Your task to perform on an android device: allow notifications from all sites in the chrome app Image 0: 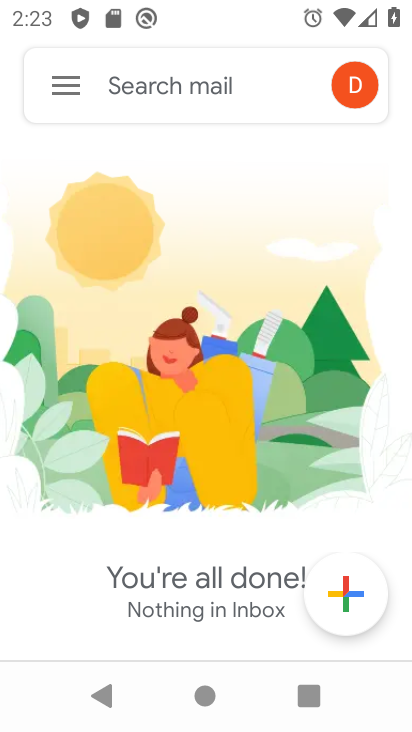
Step 0: click (69, 98)
Your task to perform on an android device: allow notifications from all sites in the chrome app Image 1: 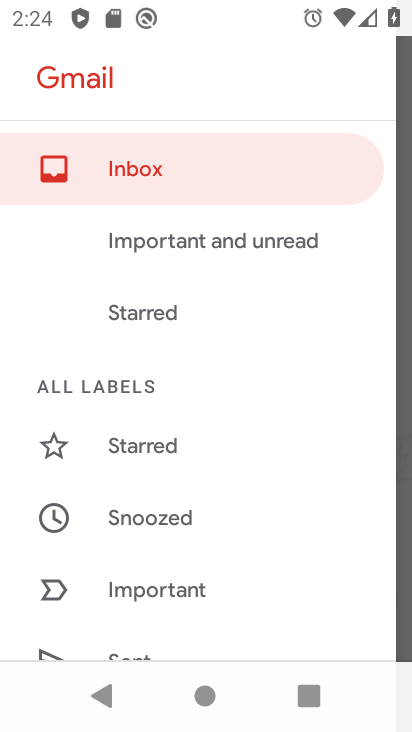
Step 1: drag from (165, 587) to (233, 79)
Your task to perform on an android device: allow notifications from all sites in the chrome app Image 2: 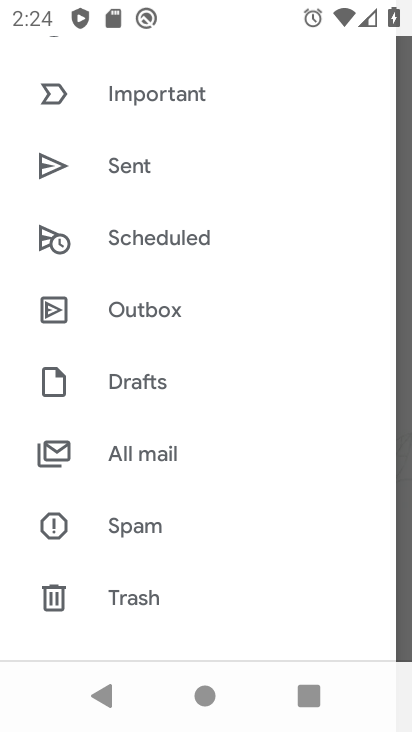
Step 2: drag from (128, 562) to (190, 169)
Your task to perform on an android device: allow notifications from all sites in the chrome app Image 3: 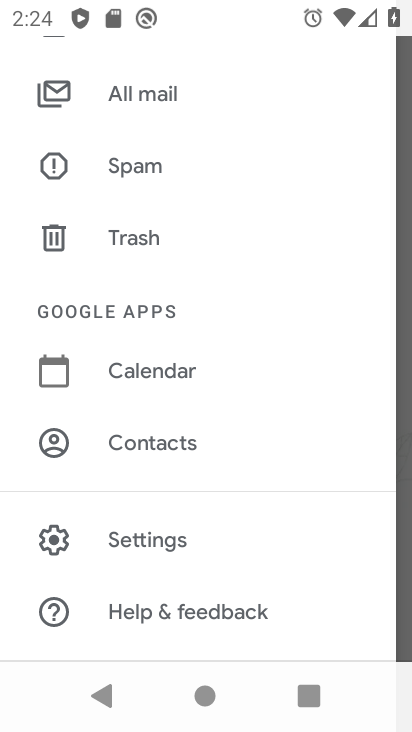
Step 3: click (103, 546)
Your task to perform on an android device: allow notifications from all sites in the chrome app Image 4: 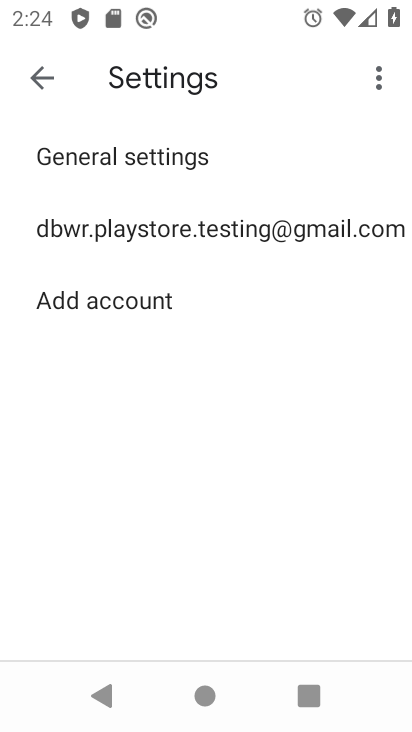
Step 4: click (231, 231)
Your task to perform on an android device: allow notifications from all sites in the chrome app Image 5: 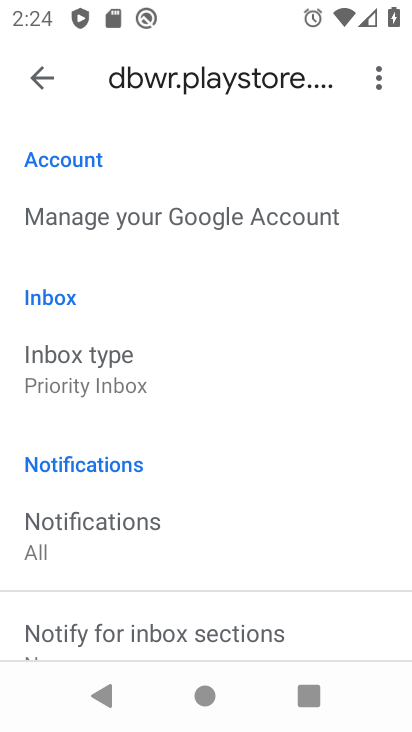
Step 5: drag from (164, 589) to (230, 0)
Your task to perform on an android device: allow notifications from all sites in the chrome app Image 6: 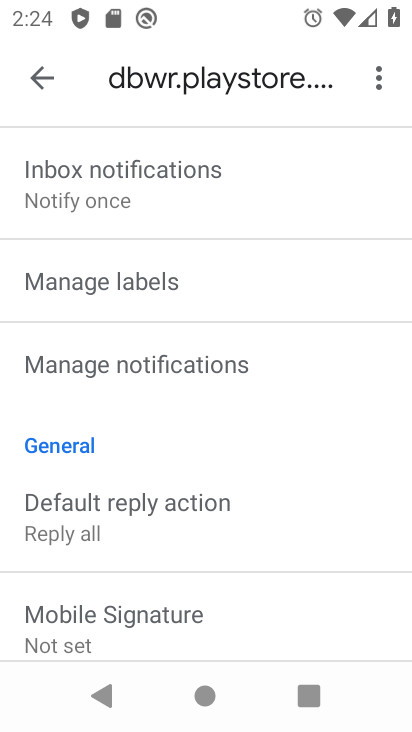
Step 6: drag from (49, 573) to (190, 130)
Your task to perform on an android device: allow notifications from all sites in the chrome app Image 7: 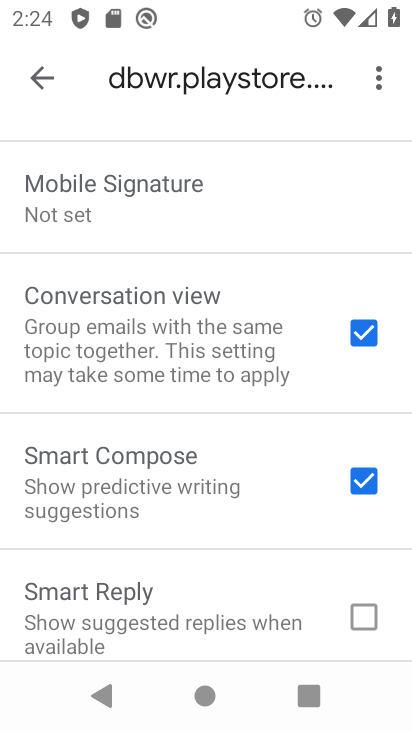
Step 7: drag from (219, 620) to (325, 233)
Your task to perform on an android device: allow notifications from all sites in the chrome app Image 8: 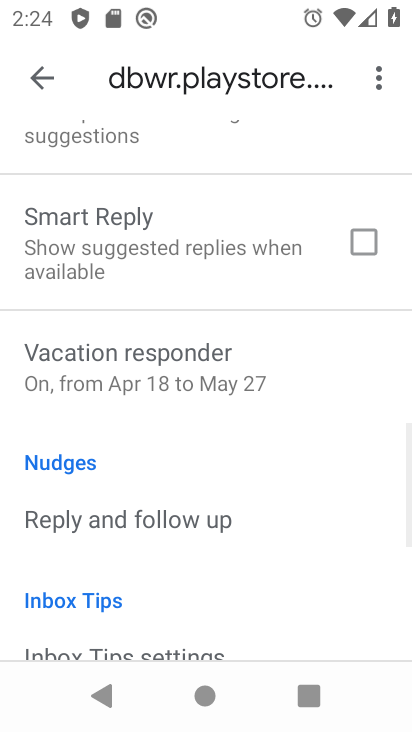
Step 8: drag from (325, 233) to (127, 625)
Your task to perform on an android device: allow notifications from all sites in the chrome app Image 9: 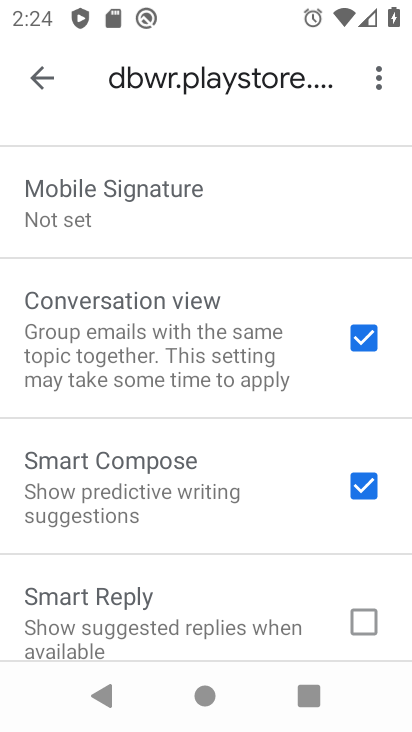
Step 9: drag from (109, 211) to (106, 650)
Your task to perform on an android device: allow notifications from all sites in the chrome app Image 10: 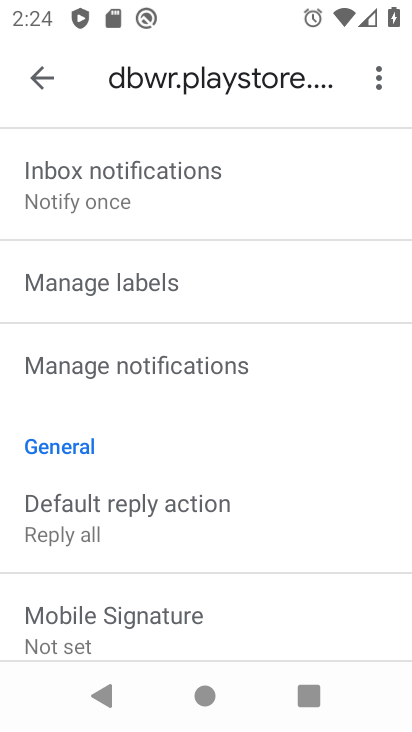
Step 10: drag from (113, 164) to (93, 517)
Your task to perform on an android device: allow notifications from all sites in the chrome app Image 11: 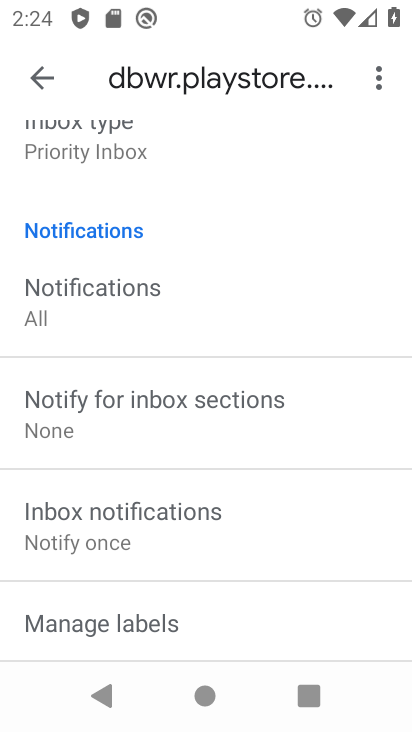
Step 11: drag from (147, 584) to (191, 197)
Your task to perform on an android device: allow notifications from all sites in the chrome app Image 12: 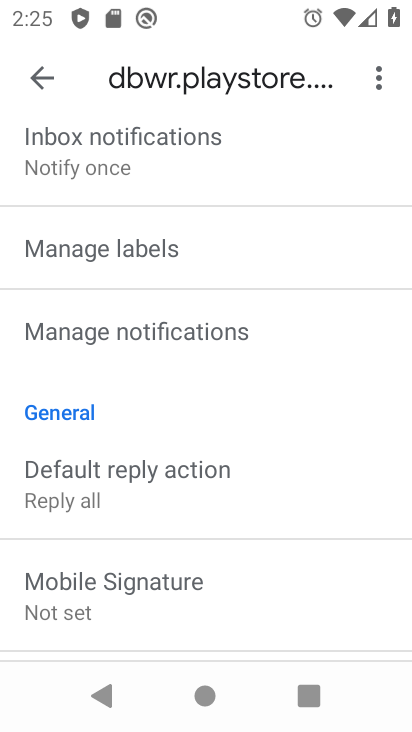
Step 12: click (178, 324)
Your task to perform on an android device: allow notifications from all sites in the chrome app Image 13: 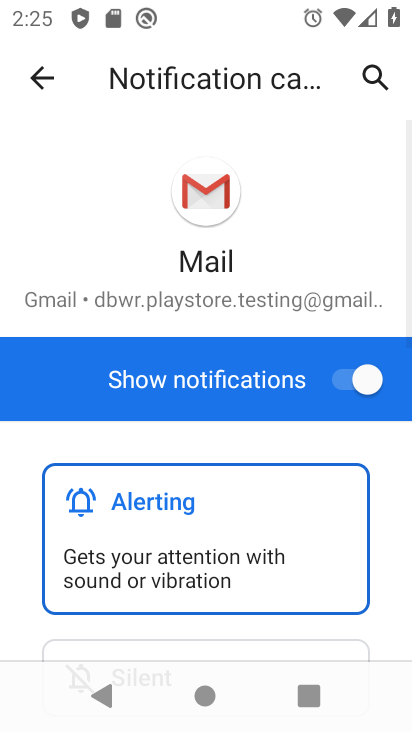
Step 13: drag from (172, 511) to (227, 136)
Your task to perform on an android device: allow notifications from all sites in the chrome app Image 14: 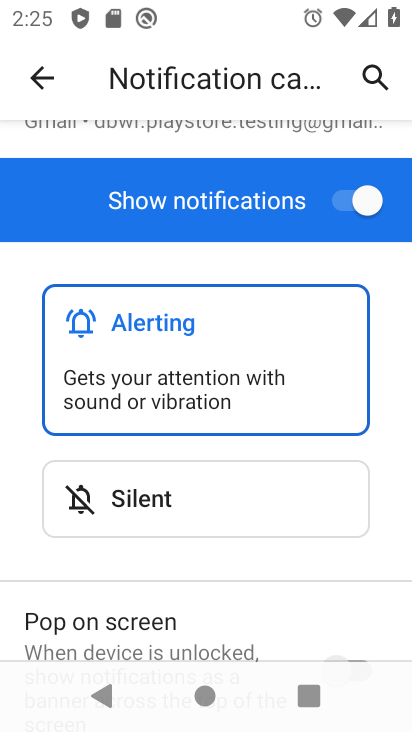
Step 14: drag from (157, 595) to (213, 43)
Your task to perform on an android device: allow notifications from all sites in the chrome app Image 15: 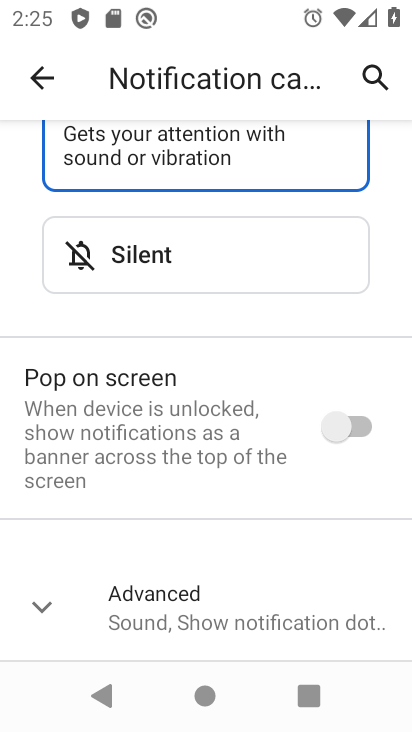
Step 15: click (182, 586)
Your task to perform on an android device: allow notifications from all sites in the chrome app Image 16: 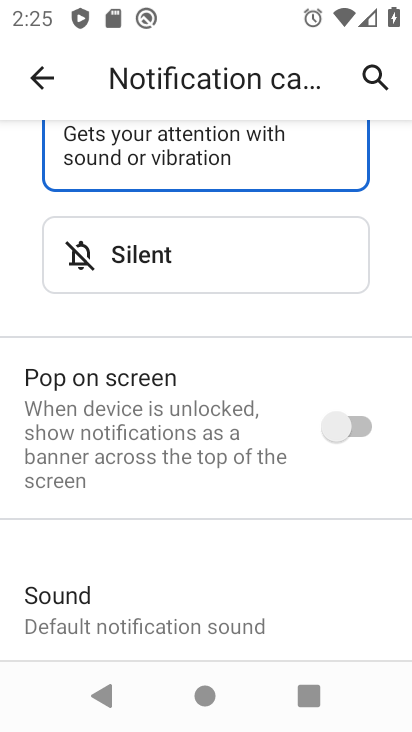
Step 16: drag from (89, 550) to (221, 41)
Your task to perform on an android device: allow notifications from all sites in the chrome app Image 17: 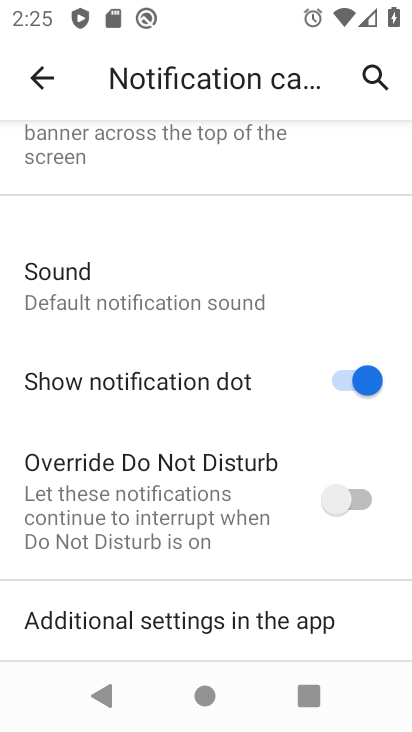
Step 17: drag from (242, 219) to (203, 552)
Your task to perform on an android device: allow notifications from all sites in the chrome app Image 18: 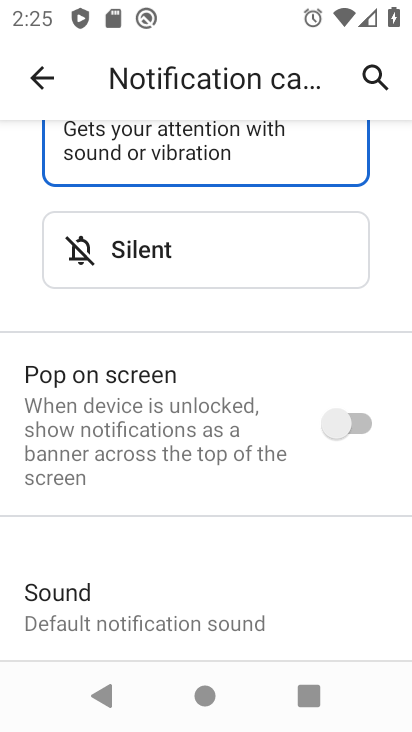
Step 18: drag from (170, 498) to (244, 54)
Your task to perform on an android device: allow notifications from all sites in the chrome app Image 19: 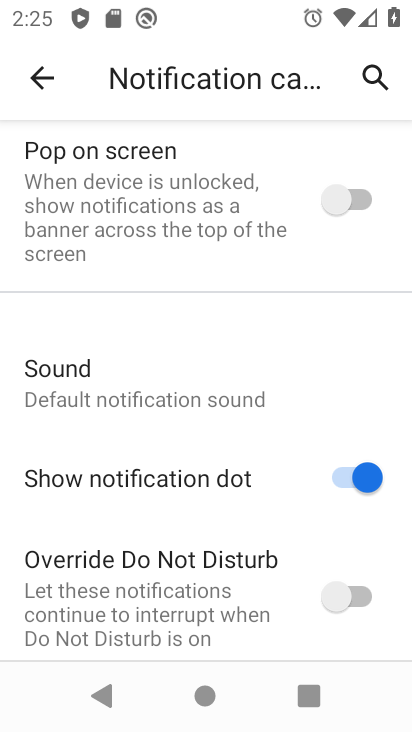
Step 19: drag from (150, 523) to (172, 243)
Your task to perform on an android device: allow notifications from all sites in the chrome app Image 20: 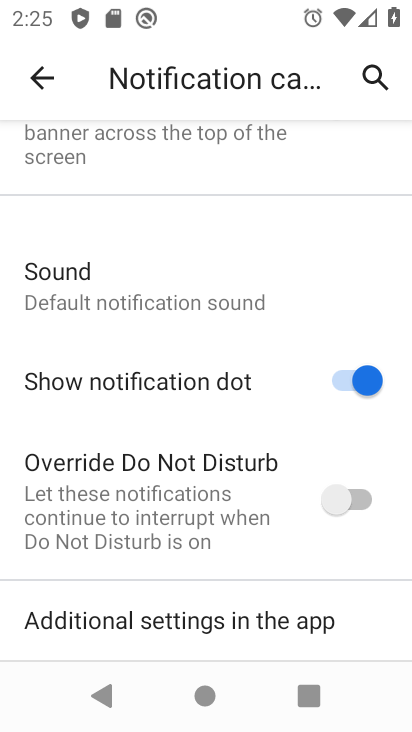
Step 20: drag from (222, 250) to (158, 631)
Your task to perform on an android device: allow notifications from all sites in the chrome app Image 21: 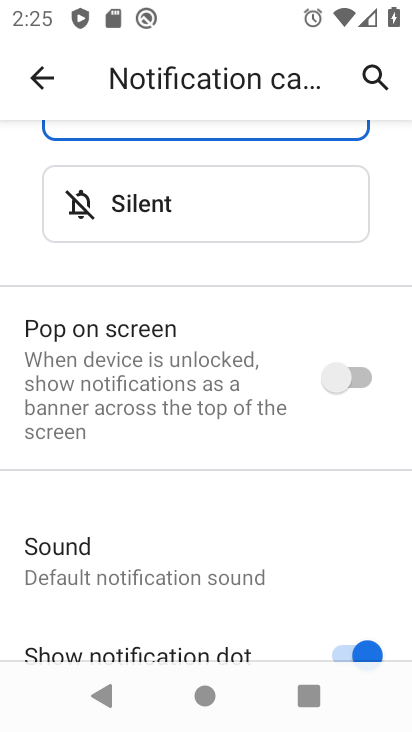
Step 21: drag from (148, 159) to (127, 681)
Your task to perform on an android device: allow notifications from all sites in the chrome app Image 22: 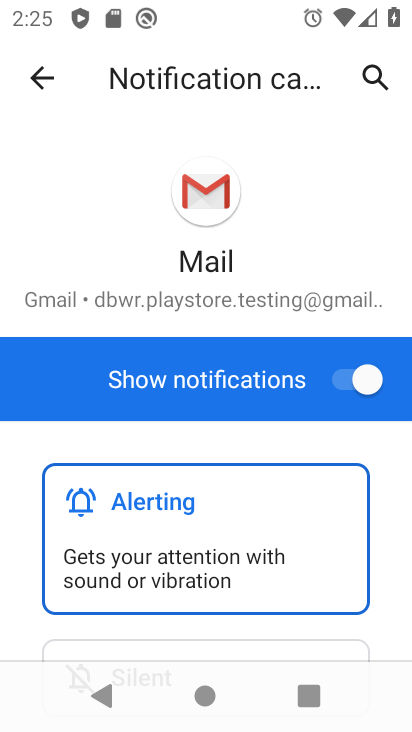
Step 22: drag from (182, 525) to (240, 147)
Your task to perform on an android device: allow notifications from all sites in the chrome app Image 23: 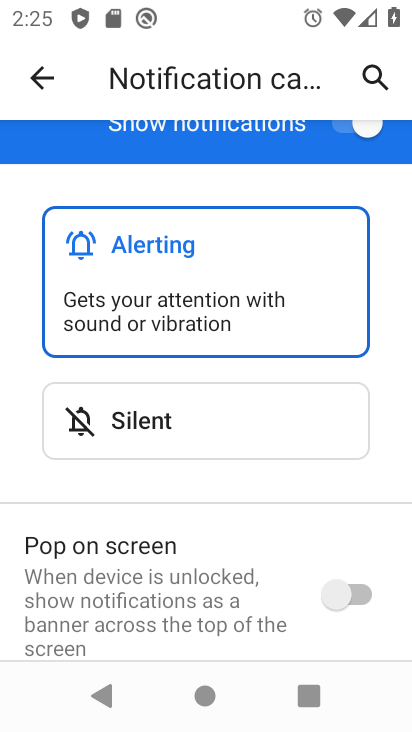
Step 23: drag from (140, 544) to (232, 117)
Your task to perform on an android device: allow notifications from all sites in the chrome app Image 24: 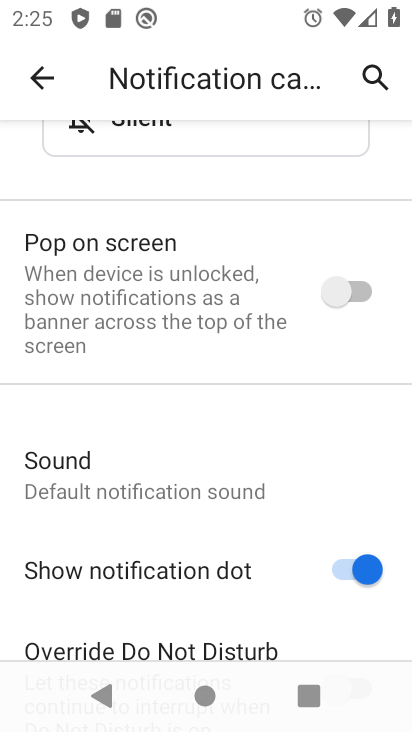
Step 24: drag from (175, 569) to (189, 236)
Your task to perform on an android device: allow notifications from all sites in the chrome app Image 25: 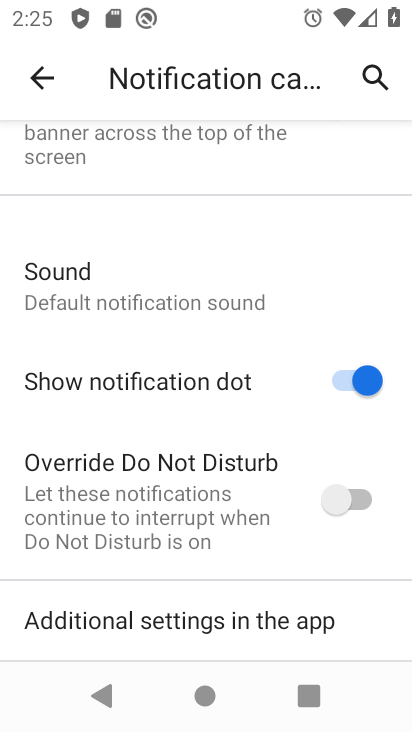
Step 25: click (168, 635)
Your task to perform on an android device: allow notifications from all sites in the chrome app Image 26: 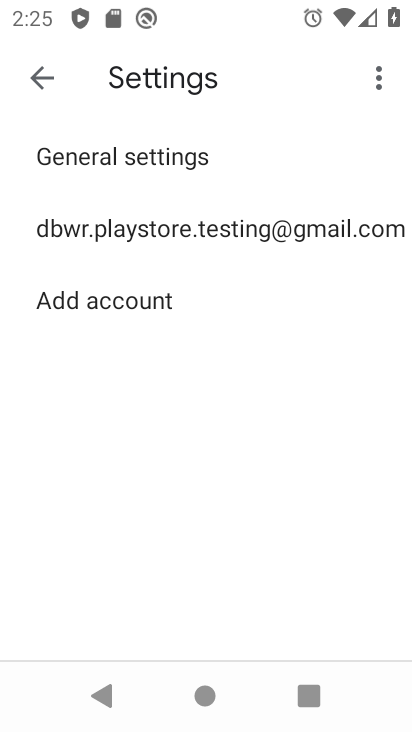
Step 26: click (214, 206)
Your task to perform on an android device: allow notifications from all sites in the chrome app Image 27: 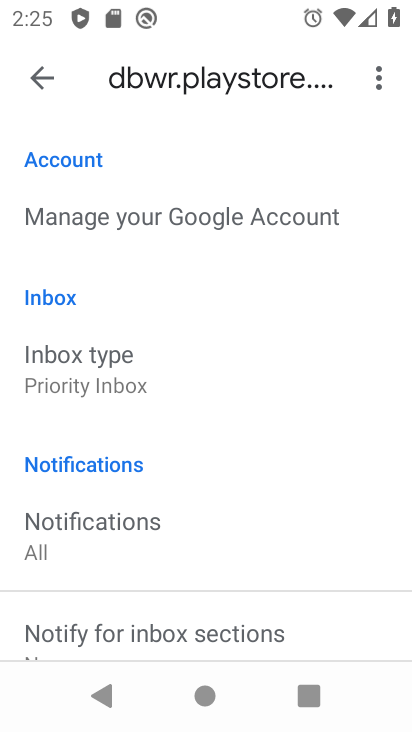
Step 27: task complete